Your task to perform on an android device: toggle notification dots Image 0: 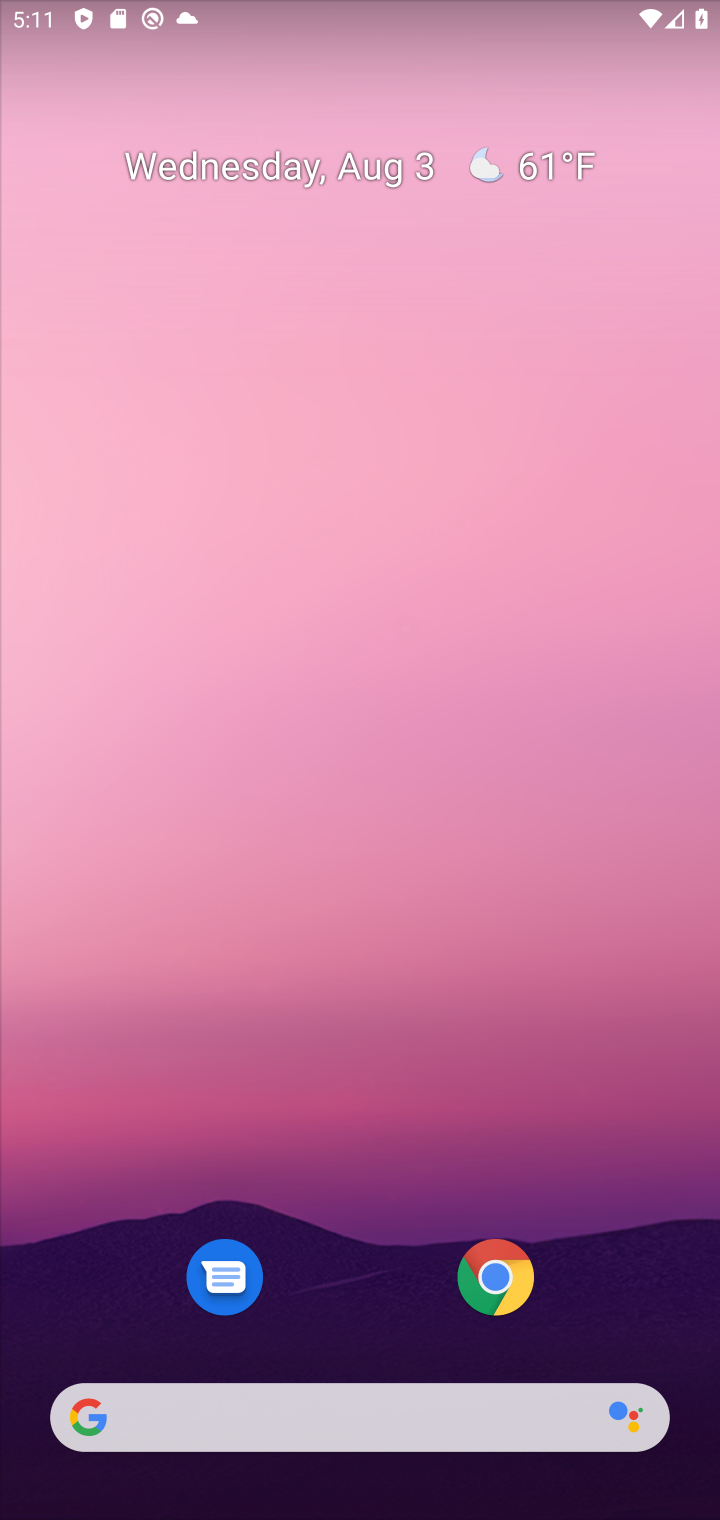
Step 0: drag from (381, 1059) to (386, 27)
Your task to perform on an android device: toggle notification dots Image 1: 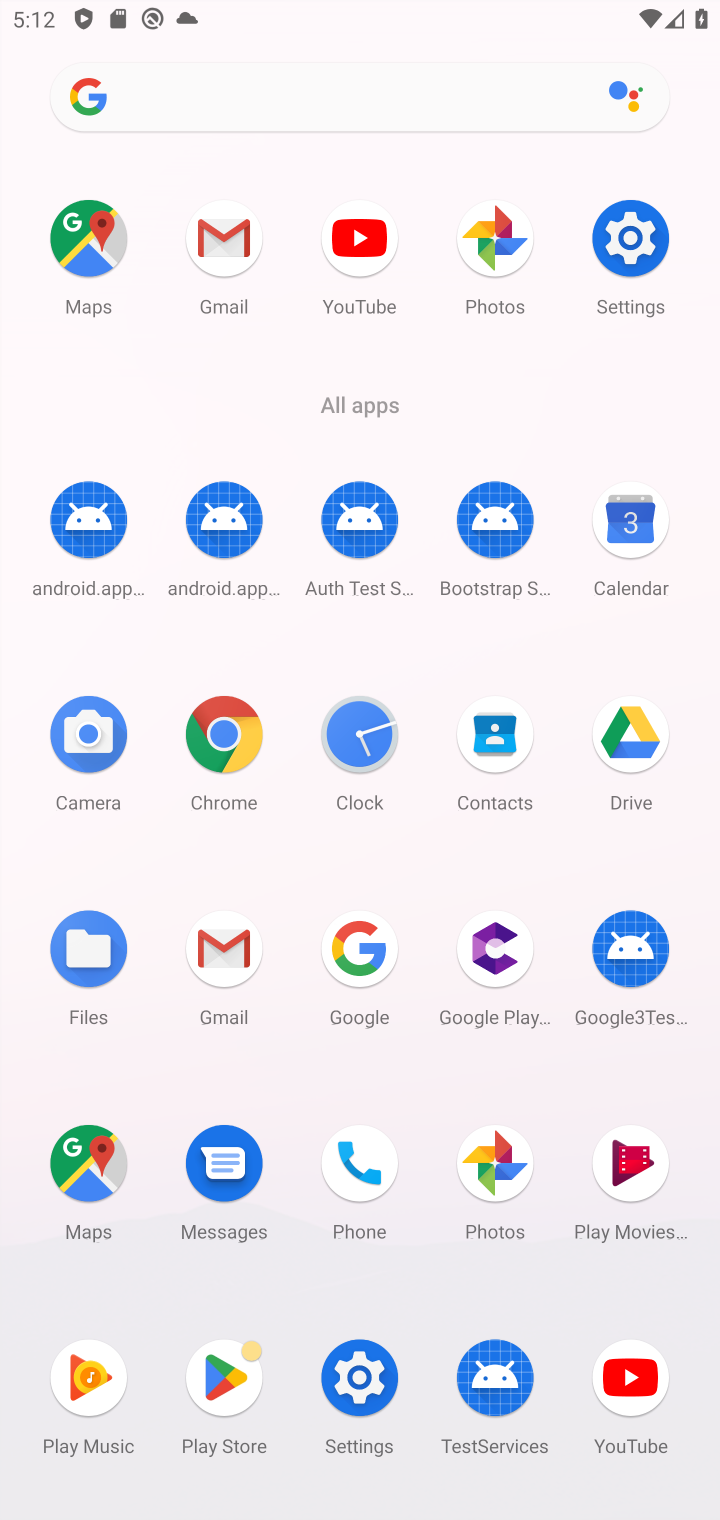
Step 1: click (629, 258)
Your task to perform on an android device: toggle notification dots Image 2: 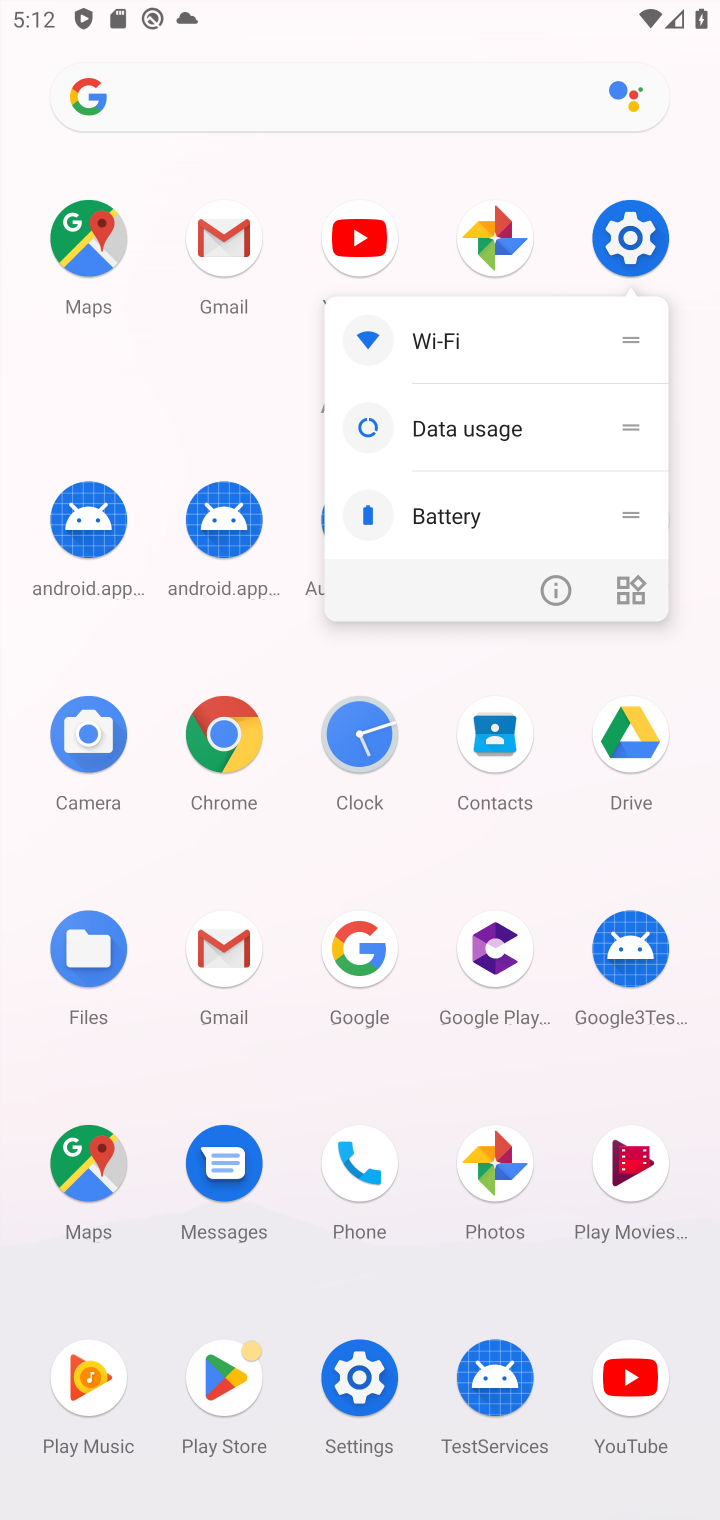
Step 2: click (630, 256)
Your task to perform on an android device: toggle notification dots Image 3: 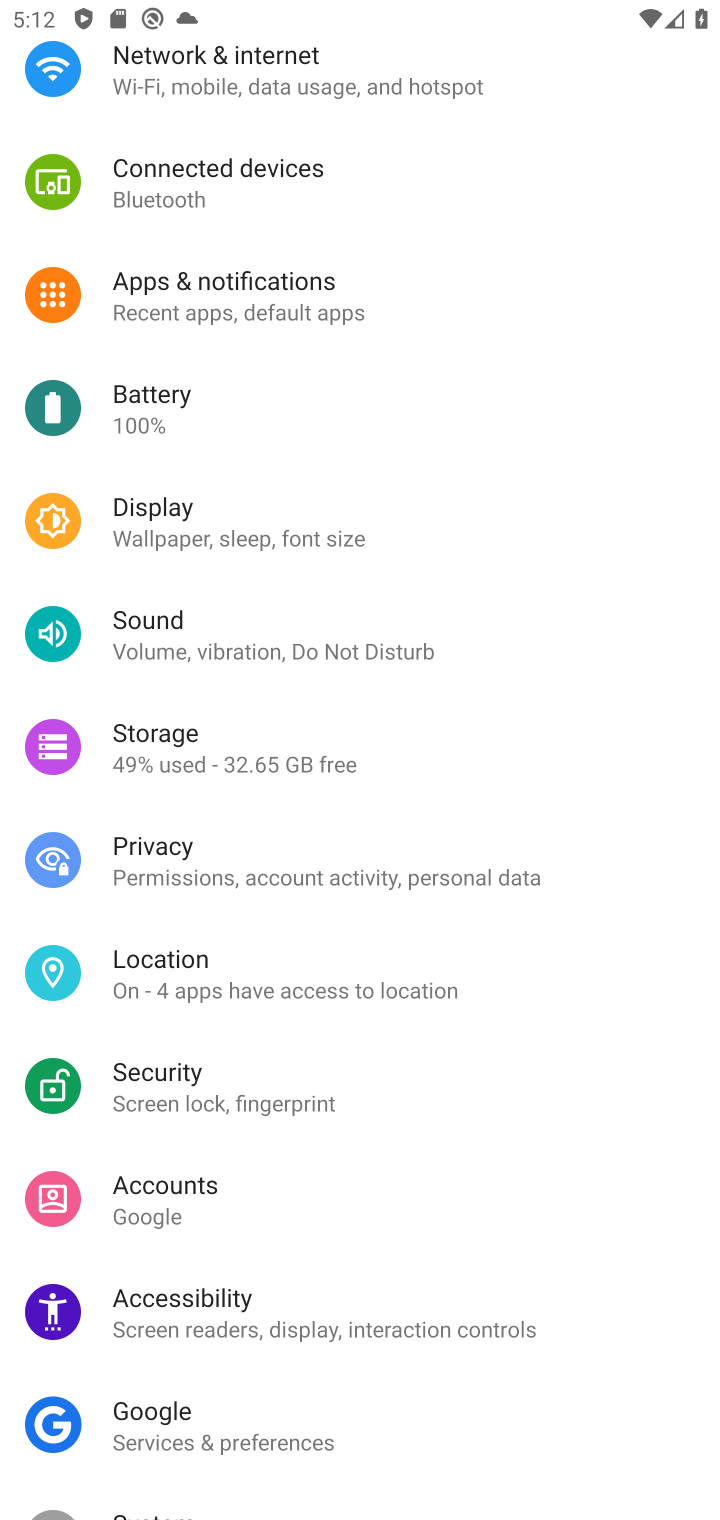
Step 3: click (284, 290)
Your task to perform on an android device: toggle notification dots Image 4: 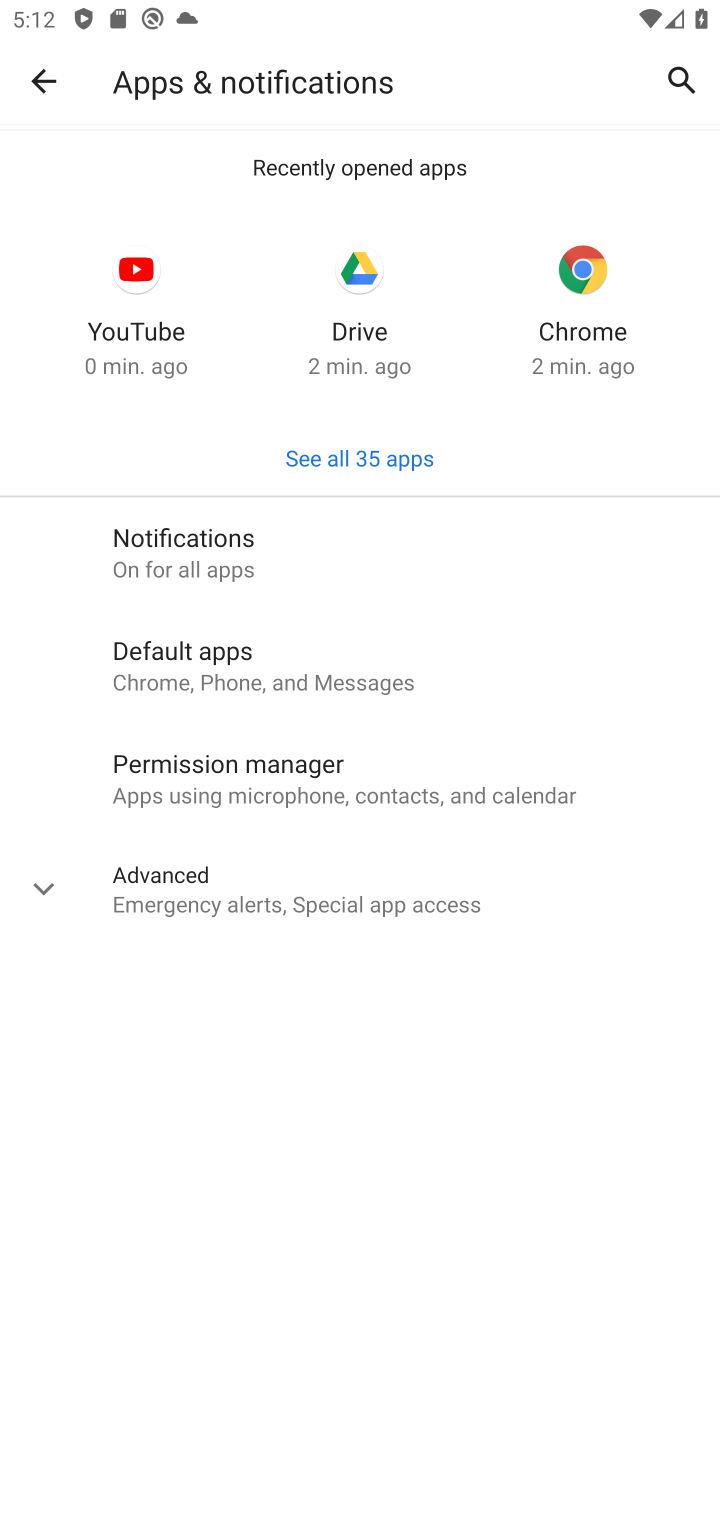
Step 4: click (212, 543)
Your task to perform on an android device: toggle notification dots Image 5: 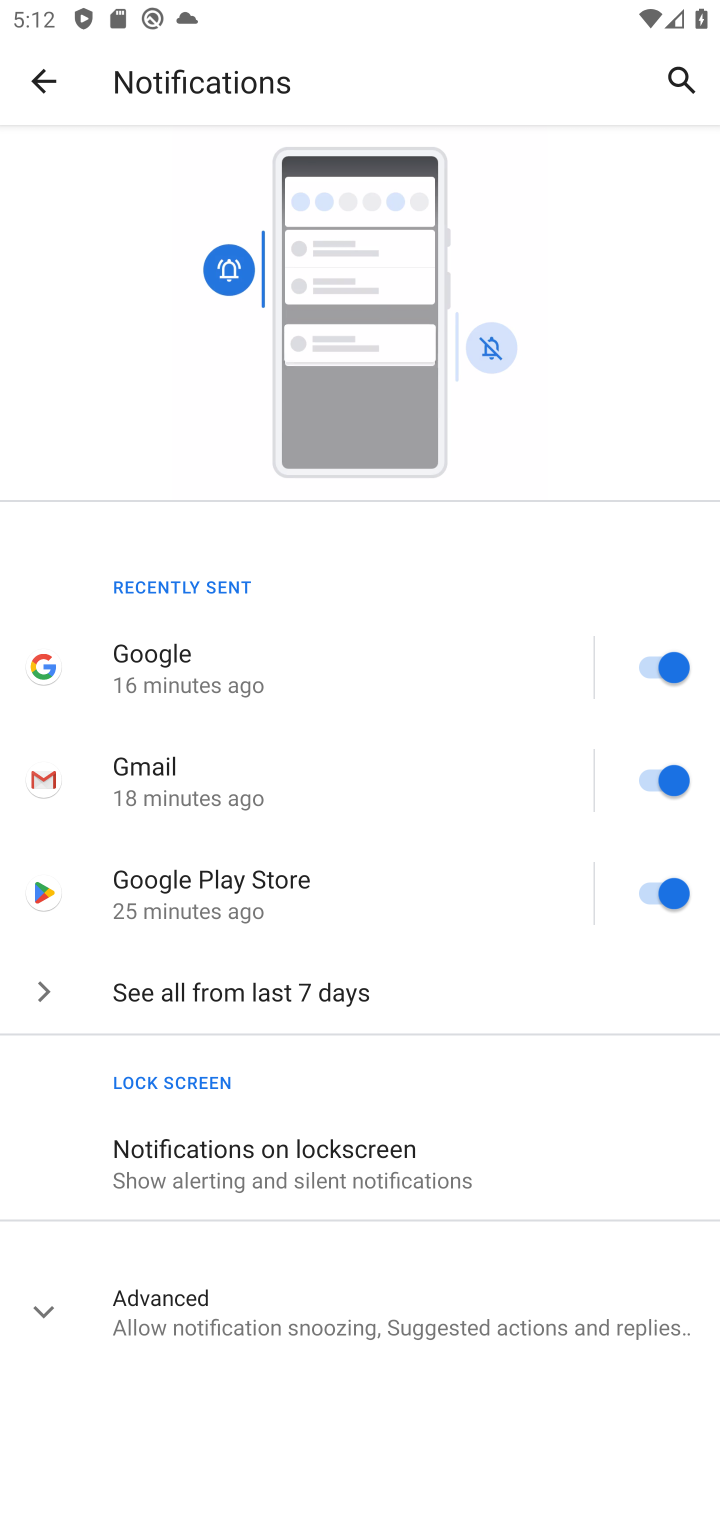
Step 5: drag from (311, 1327) to (434, 297)
Your task to perform on an android device: toggle notification dots Image 6: 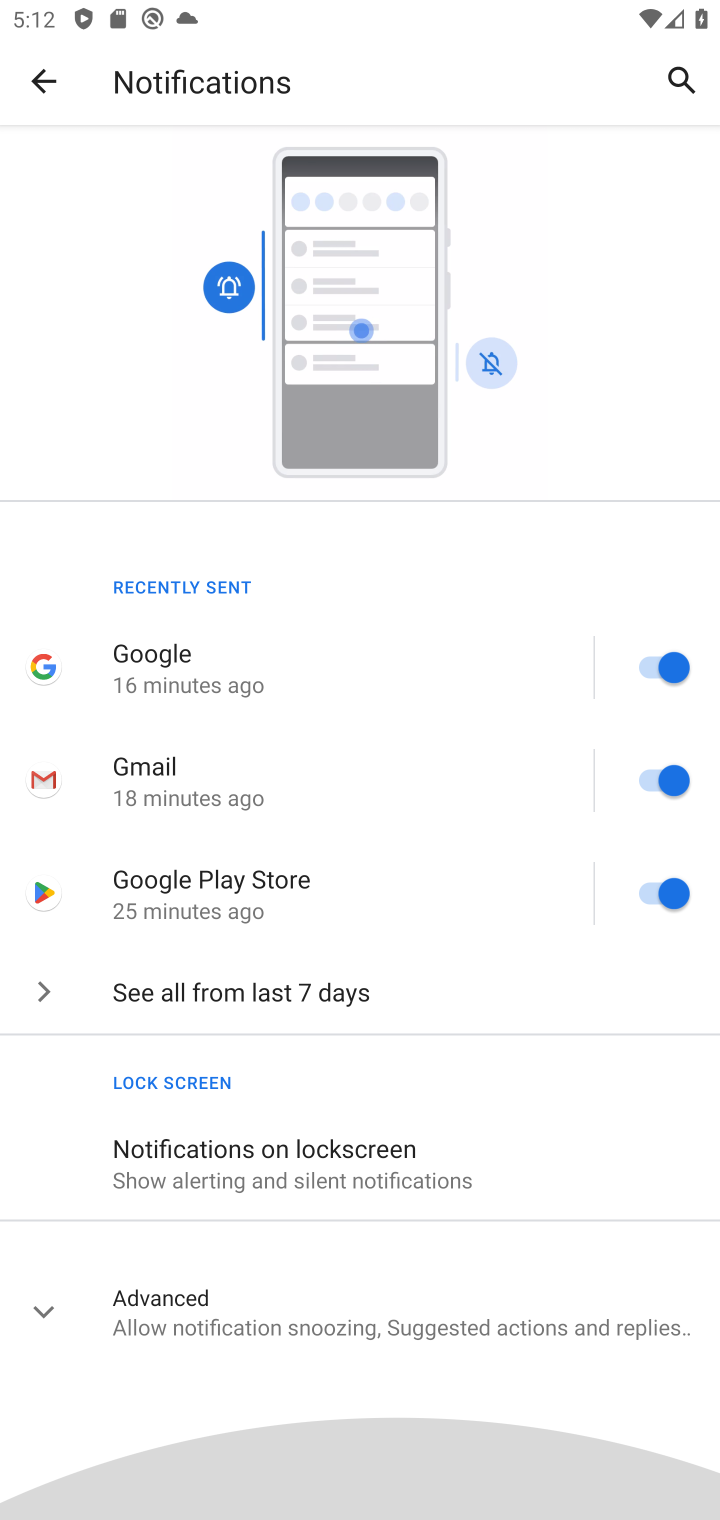
Step 6: click (202, 1309)
Your task to perform on an android device: toggle notification dots Image 7: 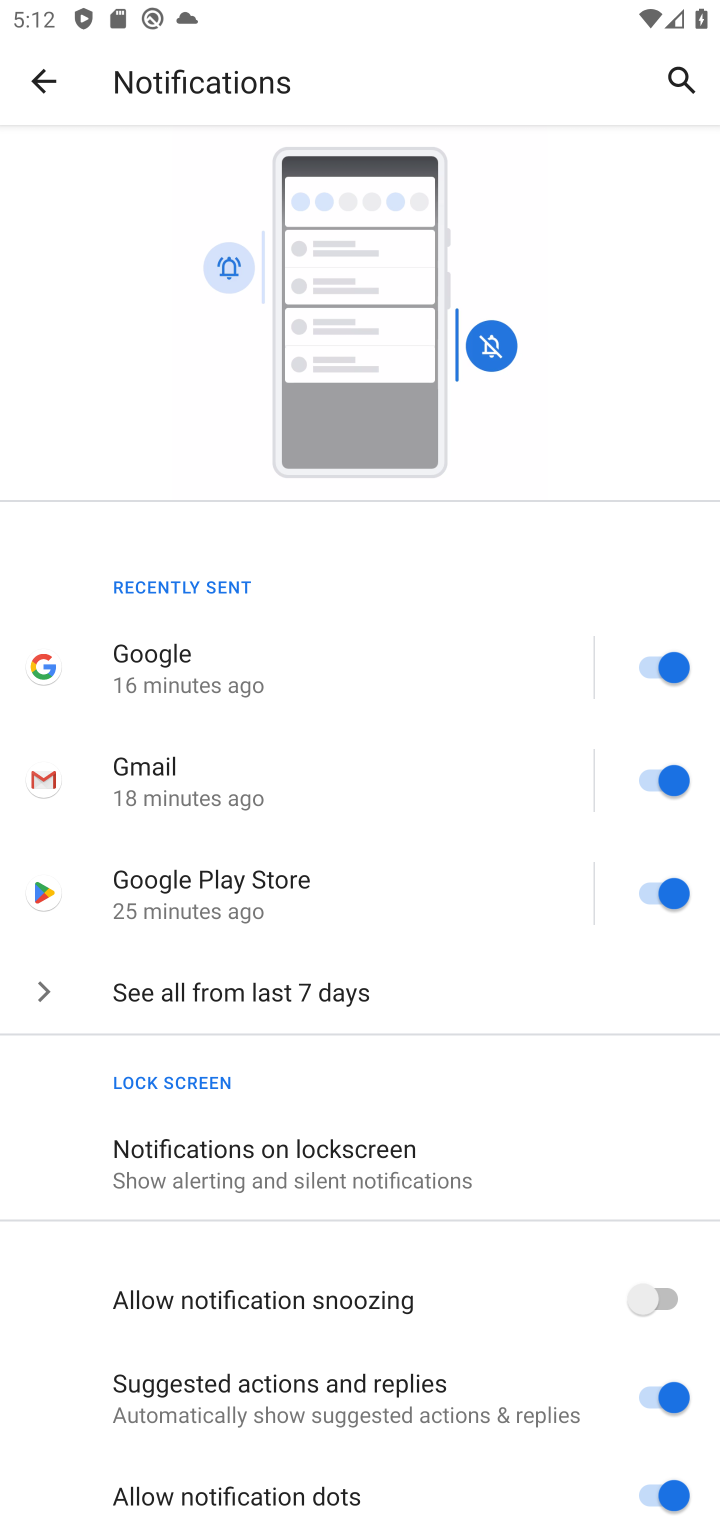
Step 7: drag from (323, 1259) to (419, 571)
Your task to perform on an android device: toggle notification dots Image 8: 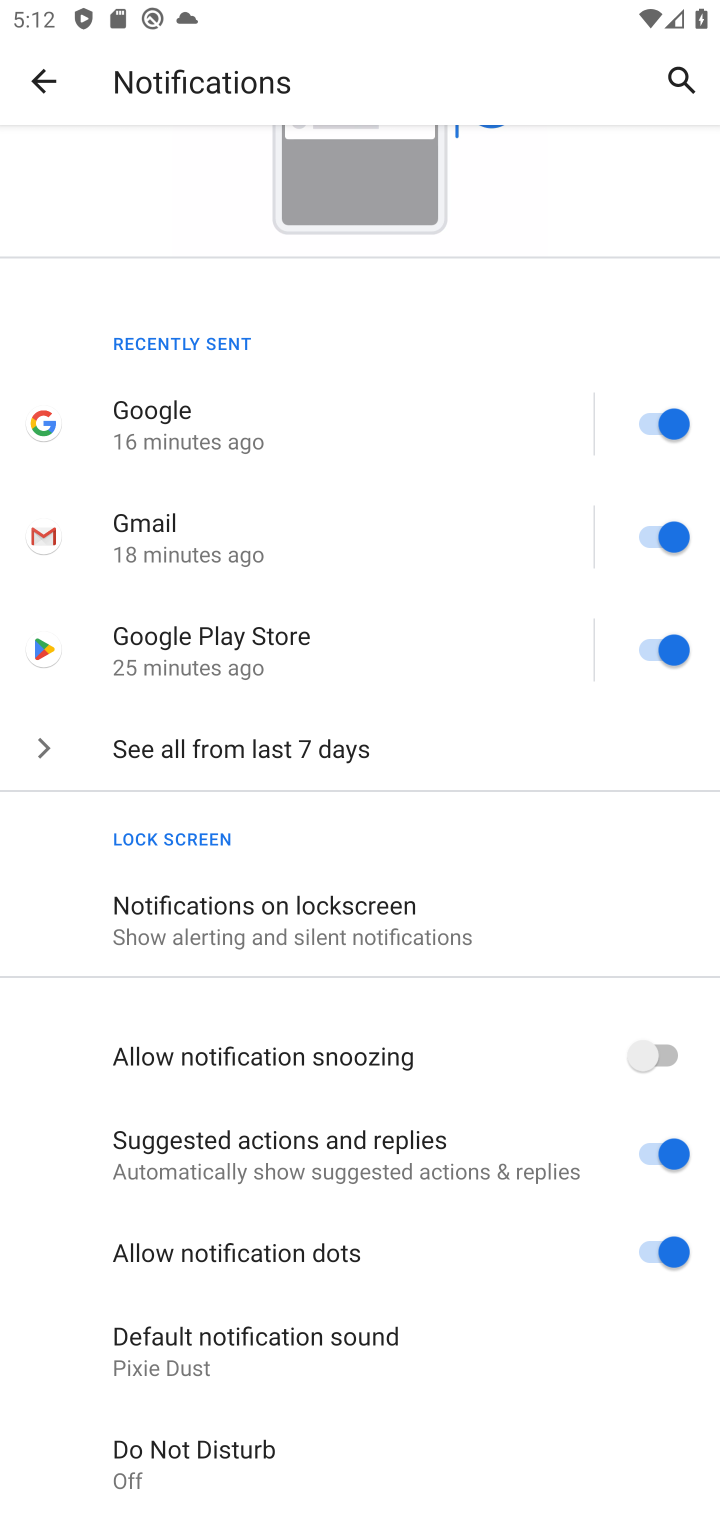
Step 8: click (669, 1252)
Your task to perform on an android device: toggle notification dots Image 9: 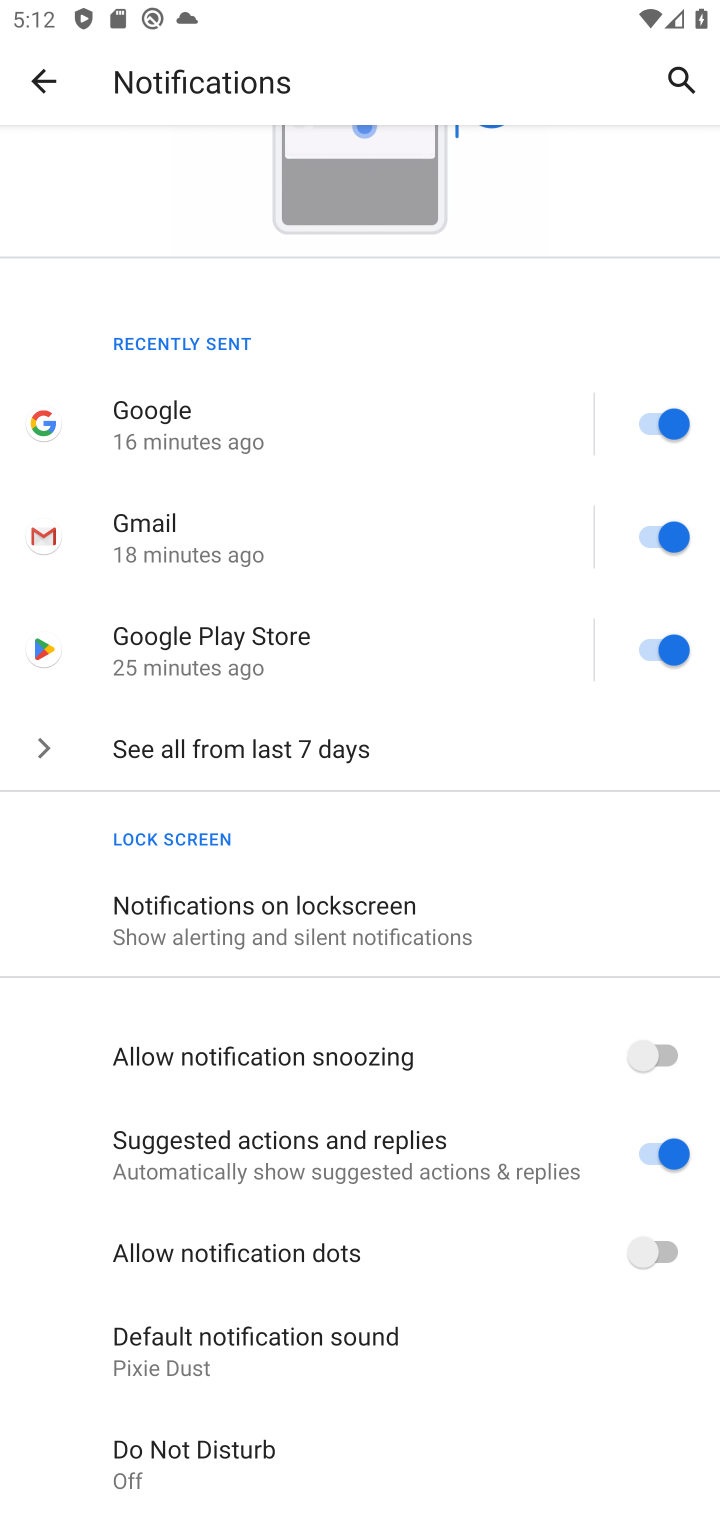
Step 9: task complete